Your task to perform on an android device: Is it going to rain today? Image 0: 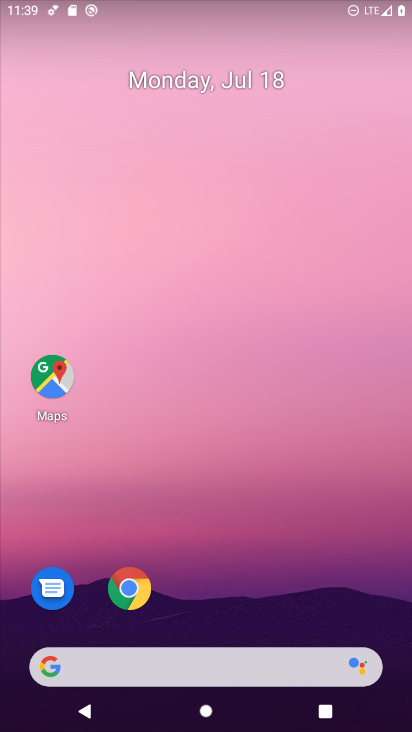
Step 0: drag from (195, 646) to (229, 24)
Your task to perform on an android device: Is it going to rain today? Image 1: 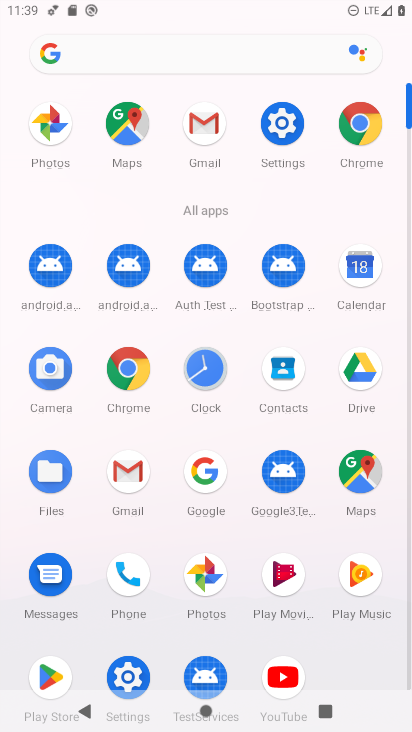
Step 1: click (203, 475)
Your task to perform on an android device: Is it going to rain today? Image 2: 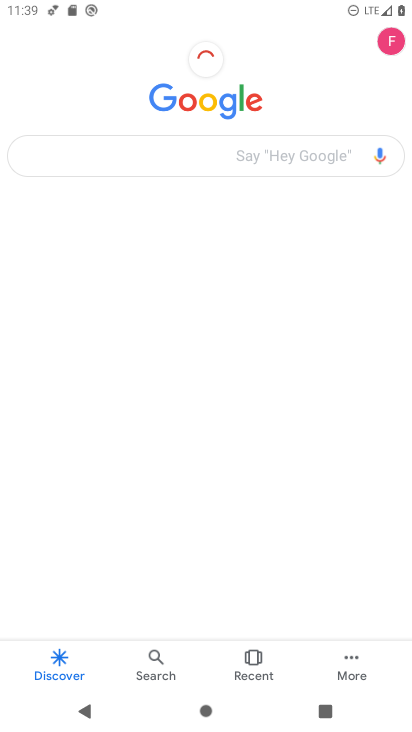
Step 2: click (84, 152)
Your task to perform on an android device: Is it going to rain today? Image 3: 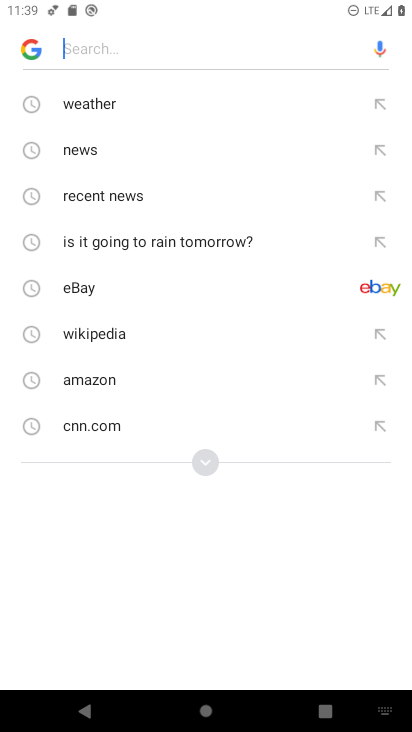
Step 3: click (197, 456)
Your task to perform on an android device: Is it going to rain today? Image 4: 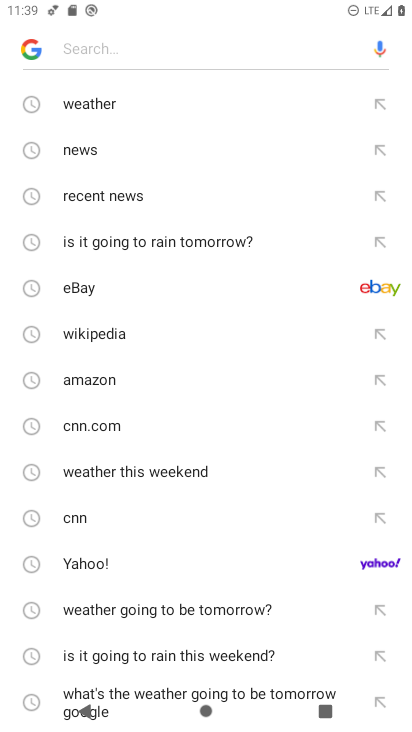
Step 4: drag from (218, 667) to (252, 207)
Your task to perform on an android device: Is it going to rain today? Image 5: 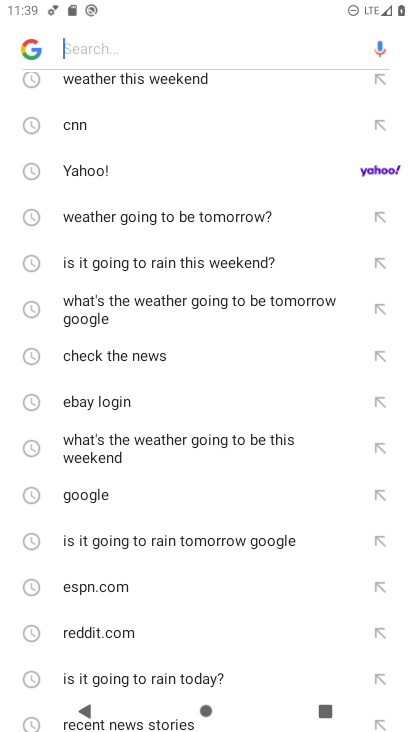
Step 5: click (141, 673)
Your task to perform on an android device: Is it going to rain today? Image 6: 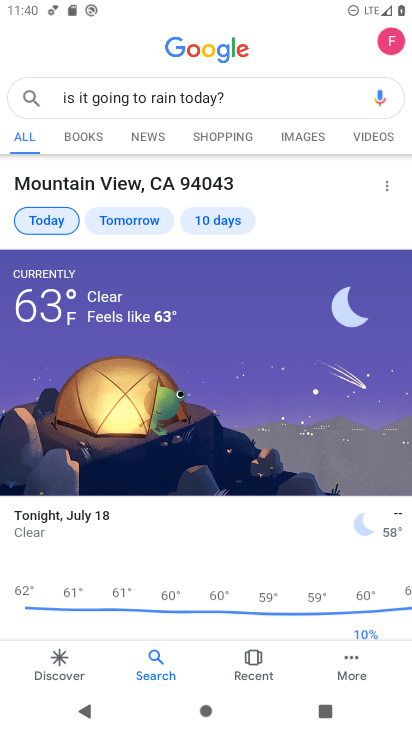
Step 6: task complete